Your task to perform on an android device: Go to Google maps Image 0: 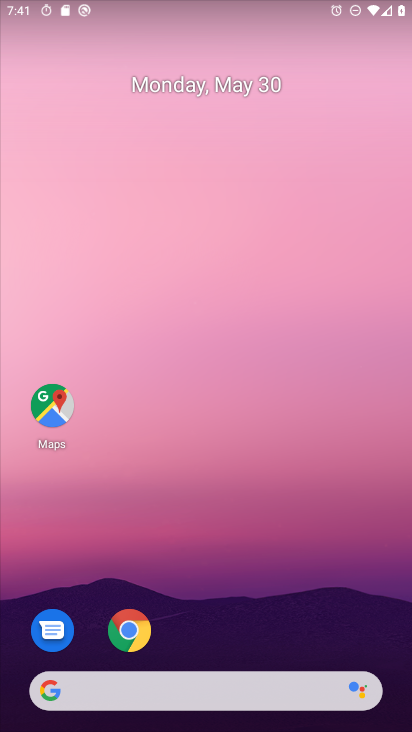
Step 0: drag from (343, 628) to (279, 4)
Your task to perform on an android device: Go to Google maps Image 1: 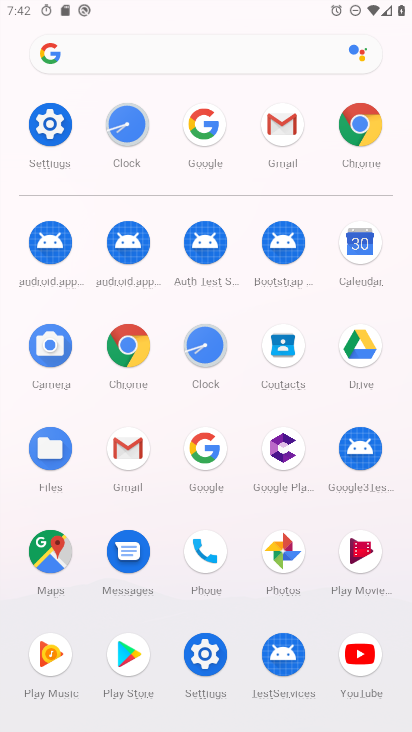
Step 1: click (49, 560)
Your task to perform on an android device: Go to Google maps Image 2: 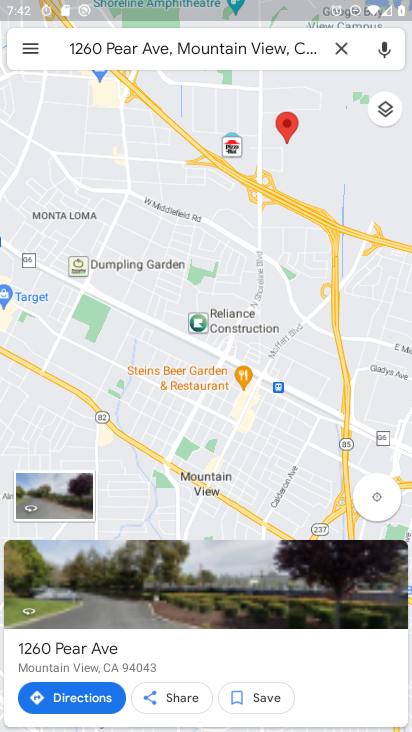
Step 2: click (337, 47)
Your task to perform on an android device: Go to Google maps Image 3: 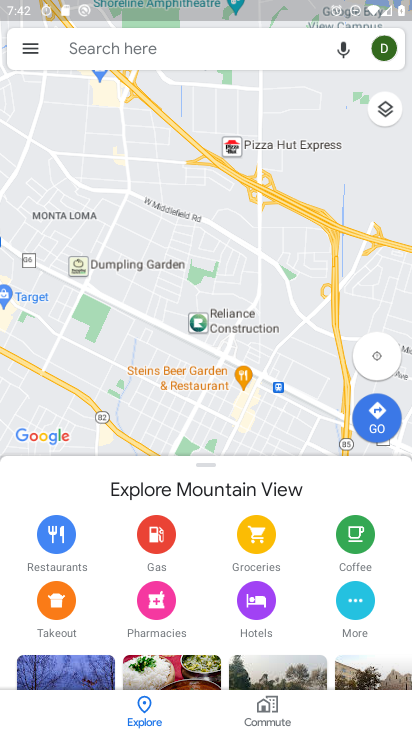
Step 3: task complete